Your task to perform on an android device: change the upload size in google photos Image 0: 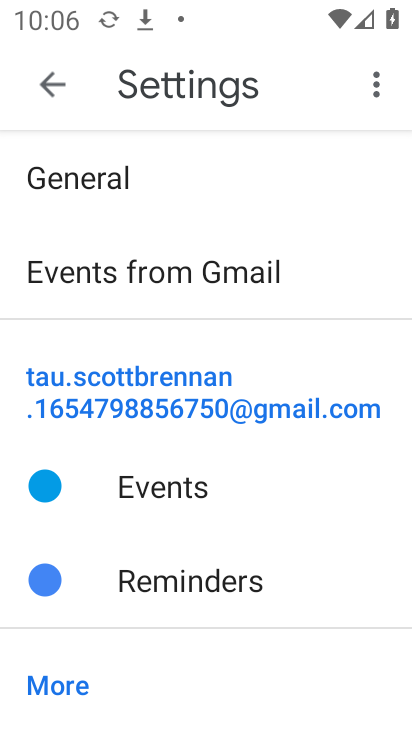
Step 0: press home button
Your task to perform on an android device: change the upload size in google photos Image 1: 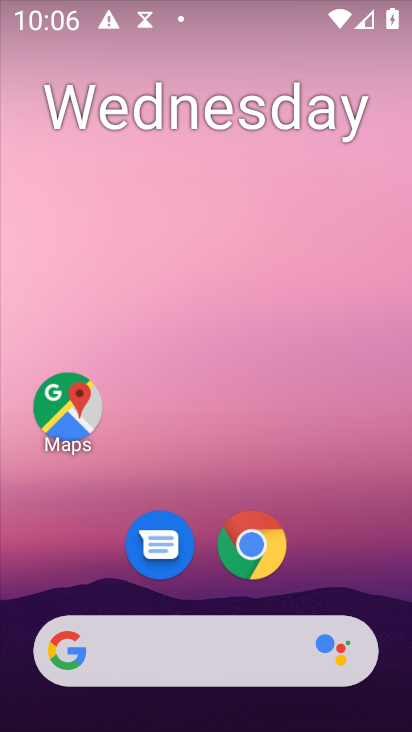
Step 1: drag from (331, 528) to (327, 58)
Your task to perform on an android device: change the upload size in google photos Image 2: 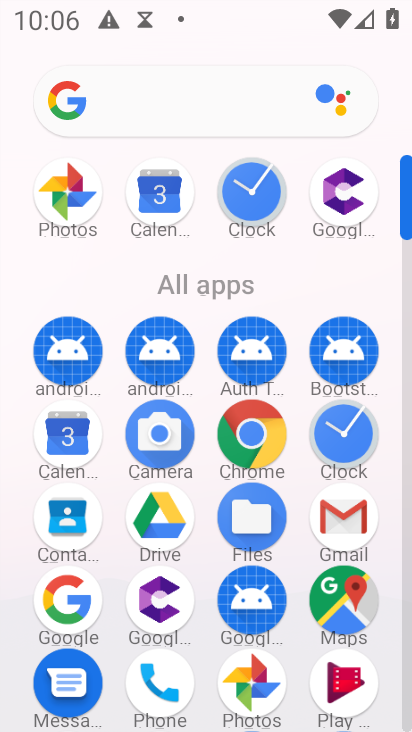
Step 2: click (65, 191)
Your task to perform on an android device: change the upload size in google photos Image 3: 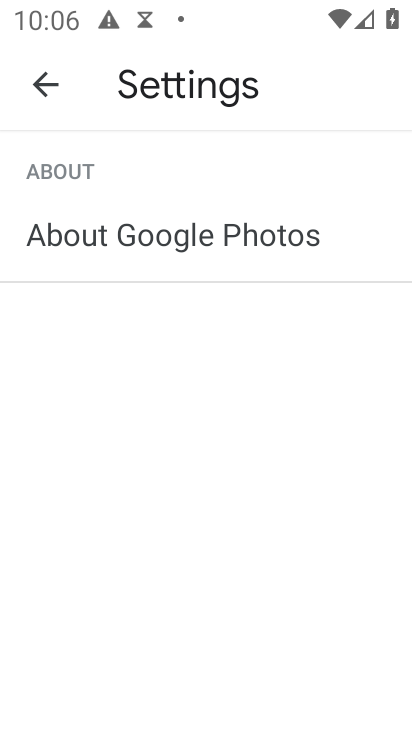
Step 3: click (42, 73)
Your task to perform on an android device: change the upload size in google photos Image 4: 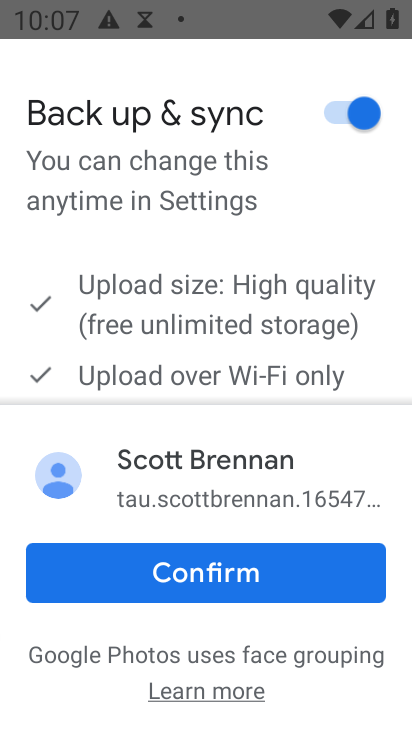
Step 4: click (145, 556)
Your task to perform on an android device: change the upload size in google photos Image 5: 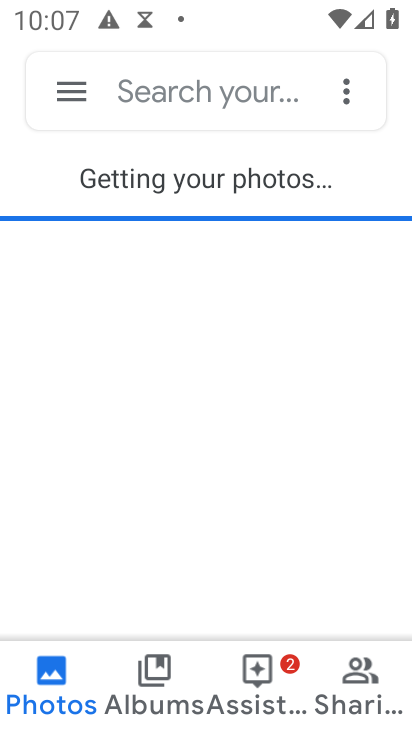
Step 5: click (80, 85)
Your task to perform on an android device: change the upload size in google photos Image 6: 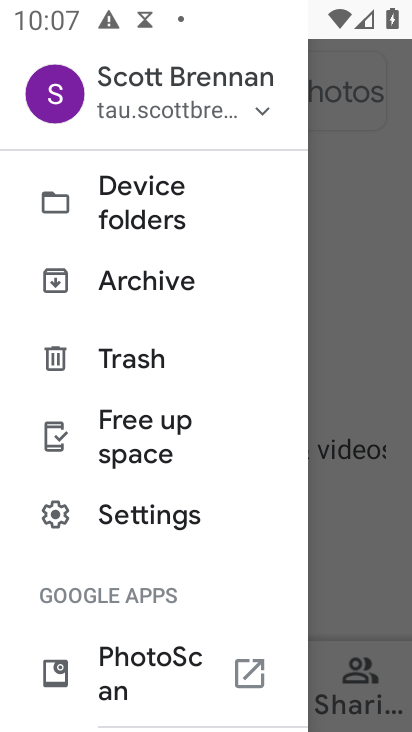
Step 6: click (181, 530)
Your task to perform on an android device: change the upload size in google photos Image 7: 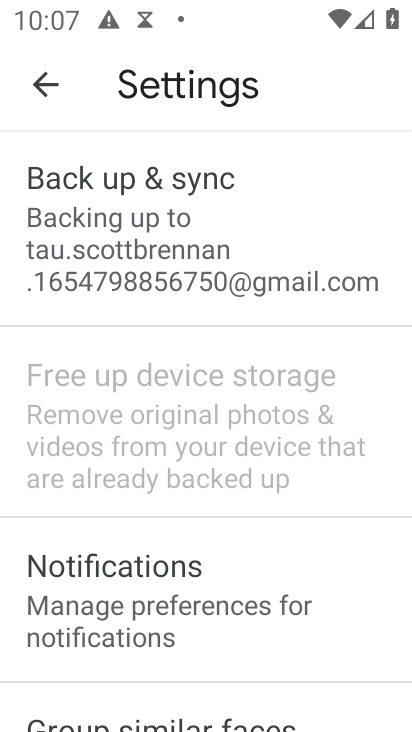
Step 7: click (105, 264)
Your task to perform on an android device: change the upload size in google photos Image 8: 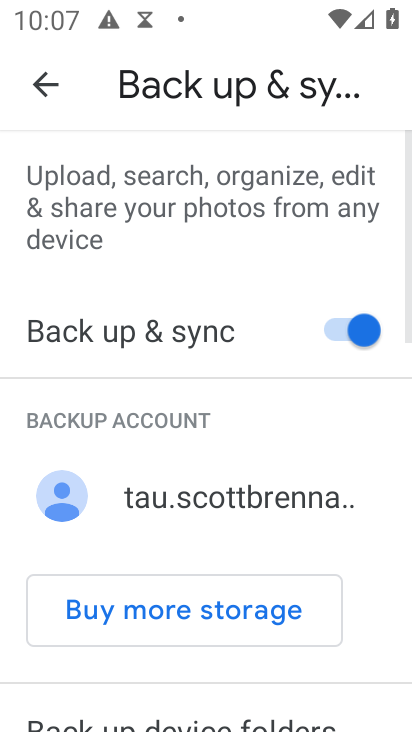
Step 8: drag from (167, 491) to (222, 14)
Your task to perform on an android device: change the upload size in google photos Image 9: 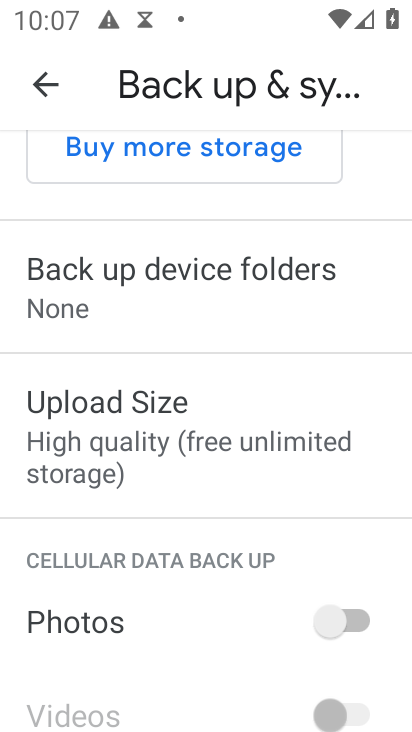
Step 9: click (221, 434)
Your task to perform on an android device: change the upload size in google photos Image 10: 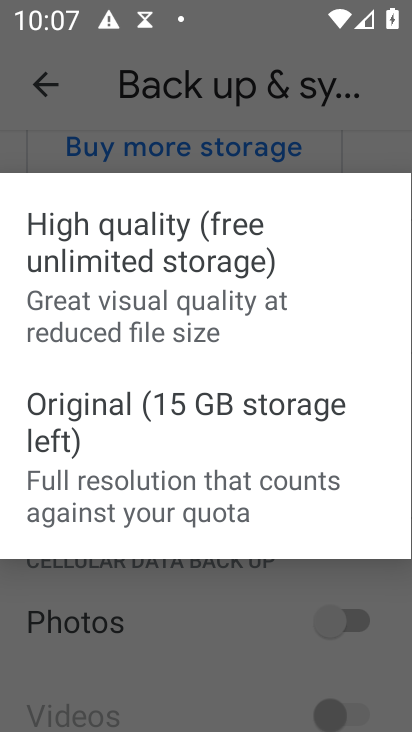
Step 10: click (192, 411)
Your task to perform on an android device: change the upload size in google photos Image 11: 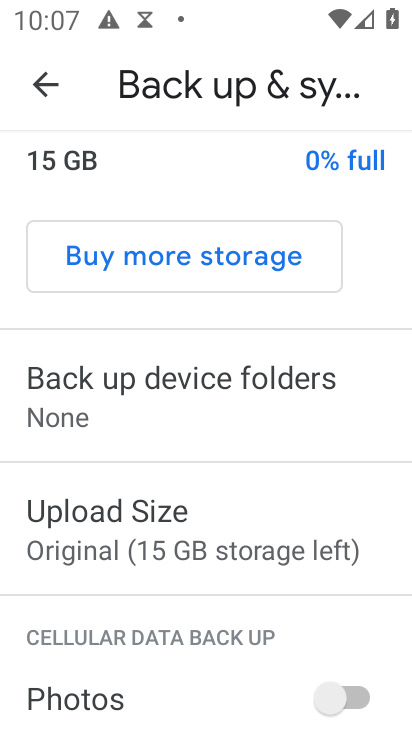
Step 11: task complete